Your task to perform on an android device: Go to display settings Image 0: 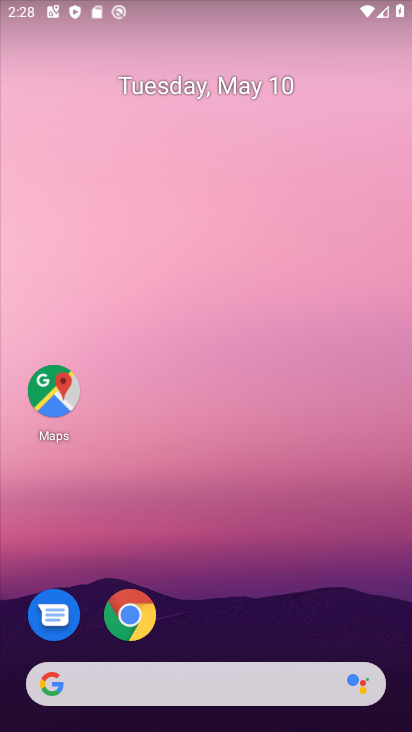
Step 0: drag from (258, 634) to (249, 105)
Your task to perform on an android device: Go to display settings Image 1: 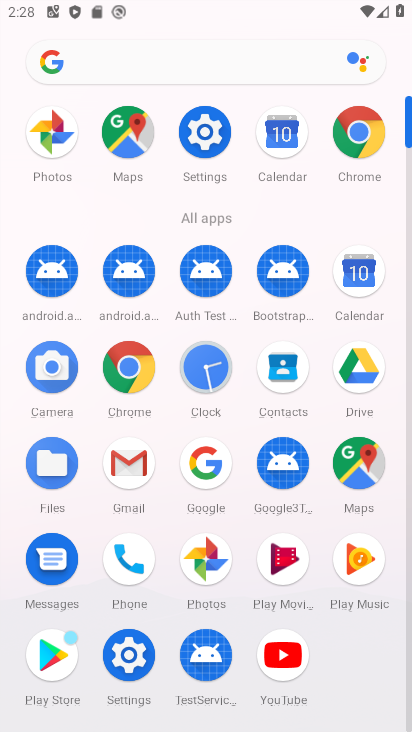
Step 1: click (202, 127)
Your task to perform on an android device: Go to display settings Image 2: 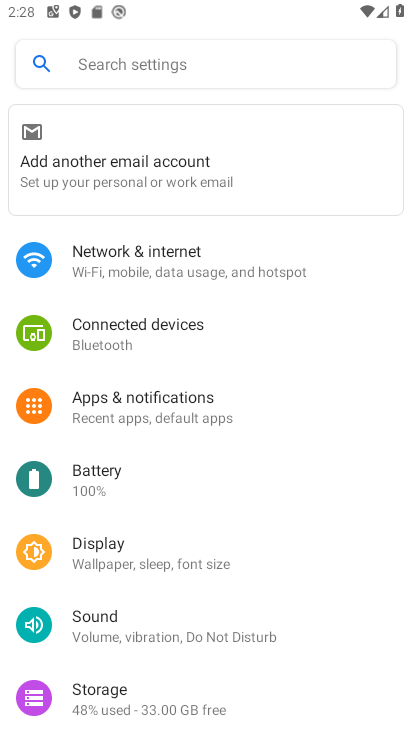
Step 2: drag from (238, 569) to (248, 274)
Your task to perform on an android device: Go to display settings Image 3: 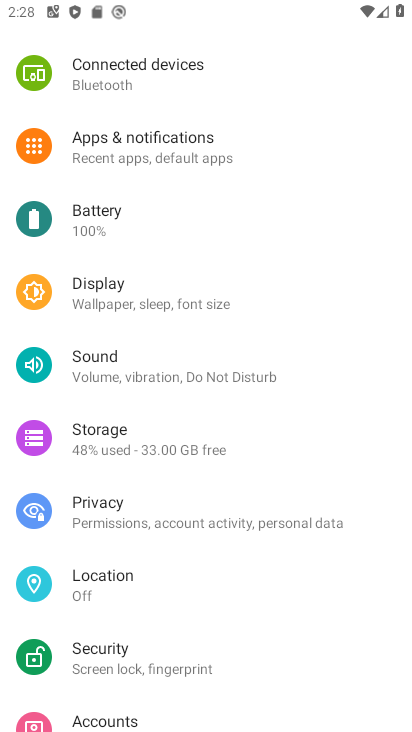
Step 3: click (103, 288)
Your task to perform on an android device: Go to display settings Image 4: 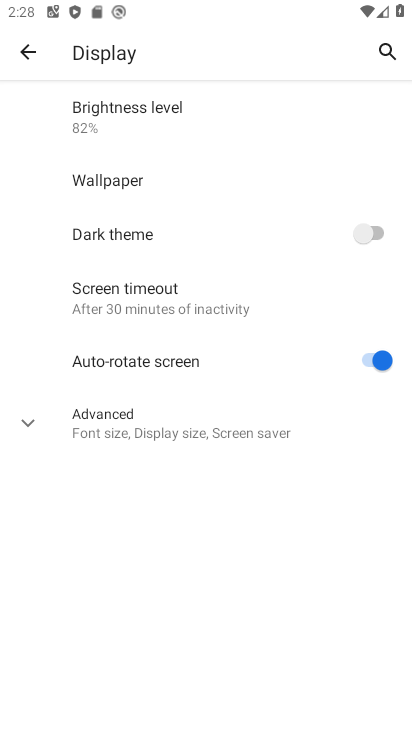
Step 4: task complete